Your task to perform on an android device: empty trash in the gmail app Image 0: 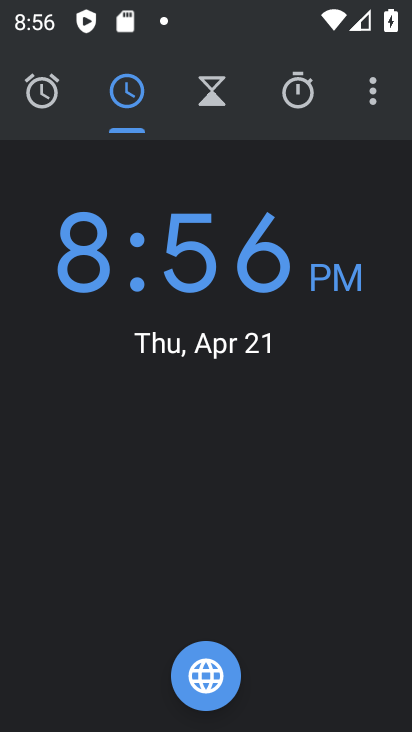
Step 0: press home button
Your task to perform on an android device: empty trash in the gmail app Image 1: 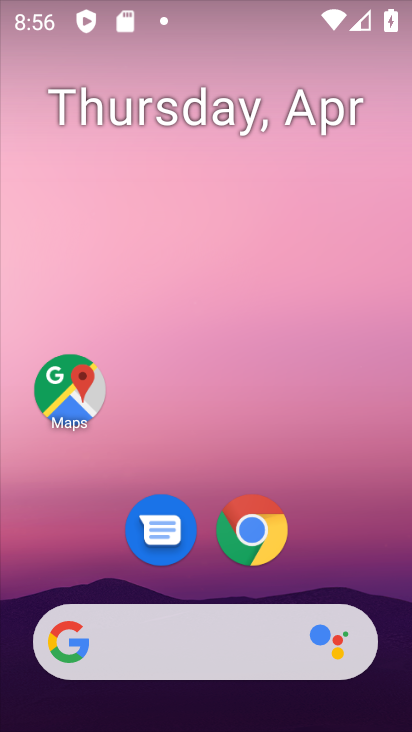
Step 1: drag from (373, 586) to (272, 76)
Your task to perform on an android device: empty trash in the gmail app Image 2: 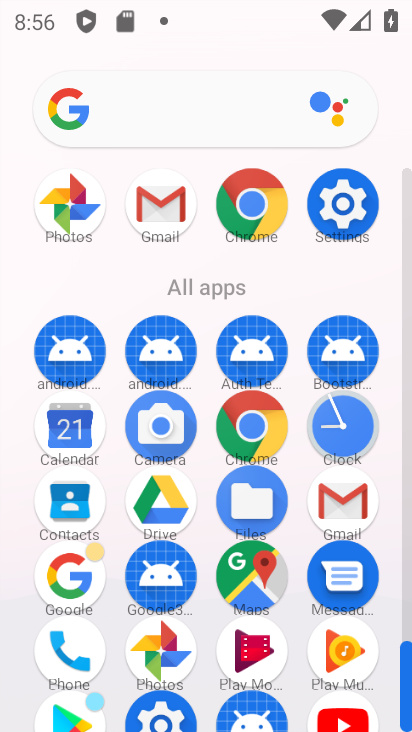
Step 2: click (328, 498)
Your task to perform on an android device: empty trash in the gmail app Image 3: 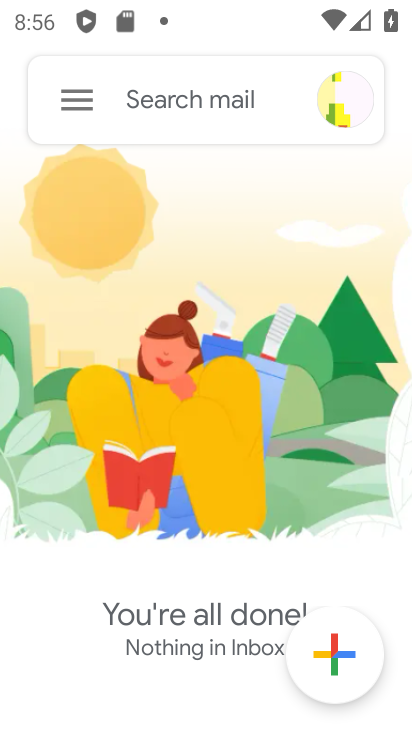
Step 3: click (65, 108)
Your task to perform on an android device: empty trash in the gmail app Image 4: 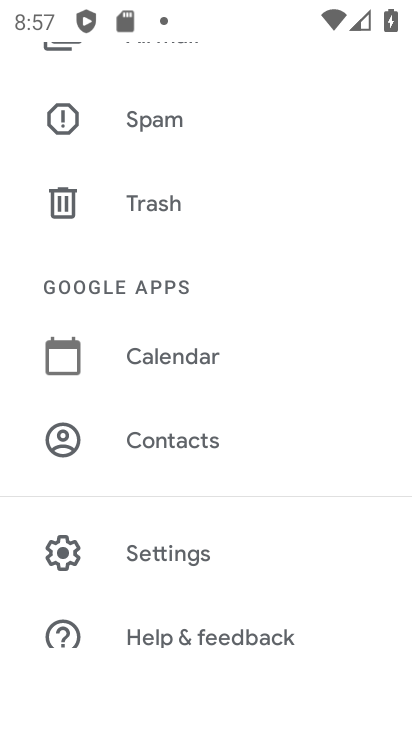
Step 4: click (204, 210)
Your task to perform on an android device: empty trash in the gmail app Image 5: 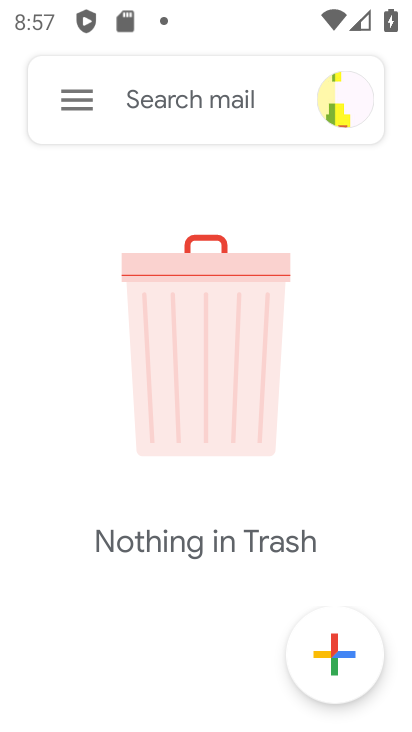
Step 5: task complete